Your task to perform on an android device: turn on sleep mode Image 0: 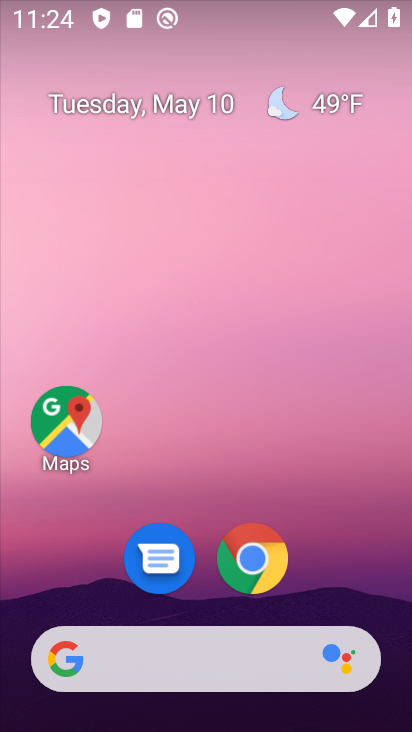
Step 0: drag from (353, 534) to (225, 39)
Your task to perform on an android device: turn on sleep mode Image 1: 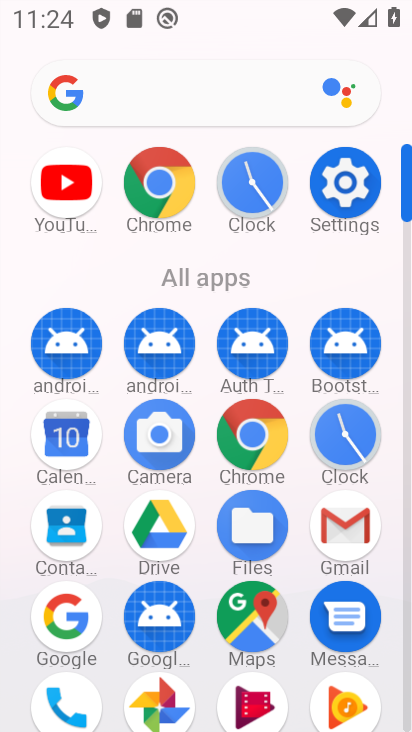
Step 1: drag from (341, 550) to (347, 41)
Your task to perform on an android device: turn on sleep mode Image 2: 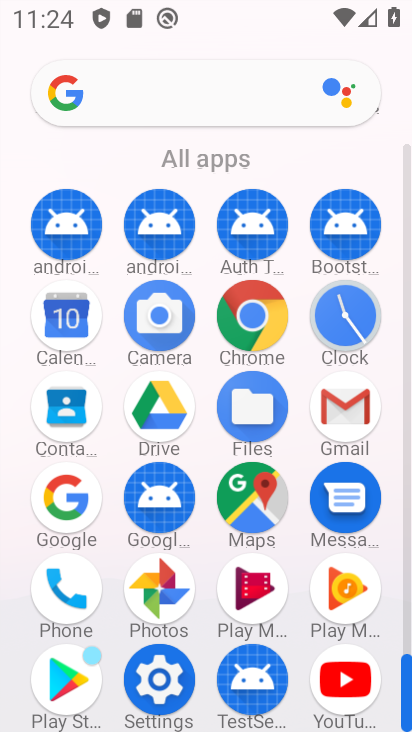
Step 2: click (327, 200)
Your task to perform on an android device: turn on sleep mode Image 3: 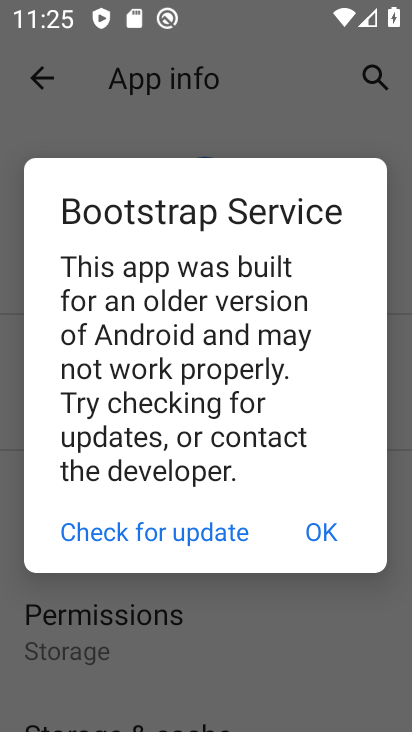
Step 3: click (161, 678)
Your task to perform on an android device: turn on sleep mode Image 4: 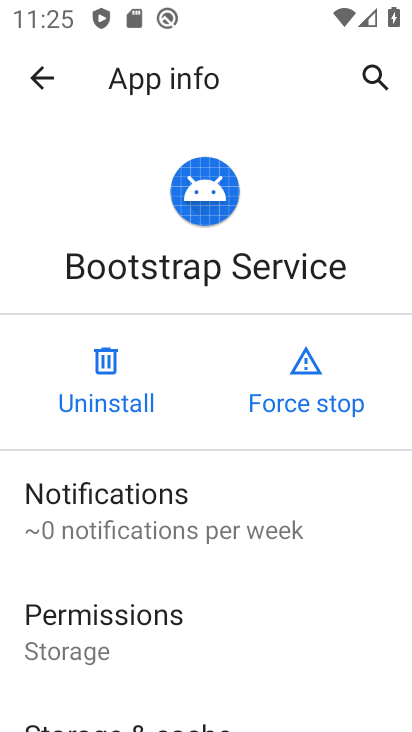
Step 4: click (315, 594)
Your task to perform on an android device: turn on sleep mode Image 5: 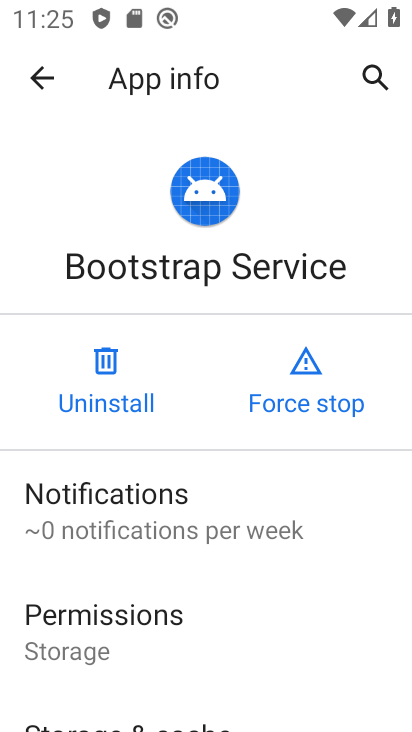
Step 5: click (315, 529)
Your task to perform on an android device: turn on sleep mode Image 6: 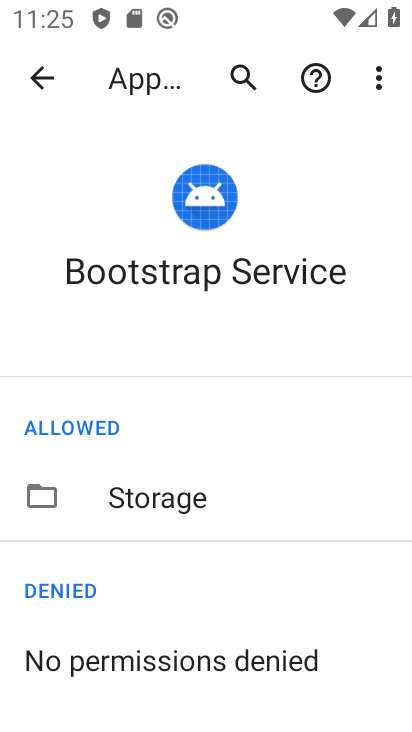
Step 6: click (59, 100)
Your task to perform on an android device: turn on sleep mode Image 7: 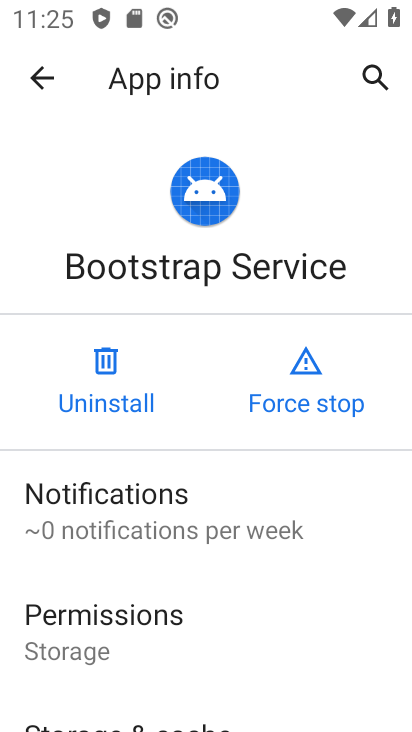
Step 7: click (46, 72)
Your task to perform on an android device: turn on sleep mode Image 8: 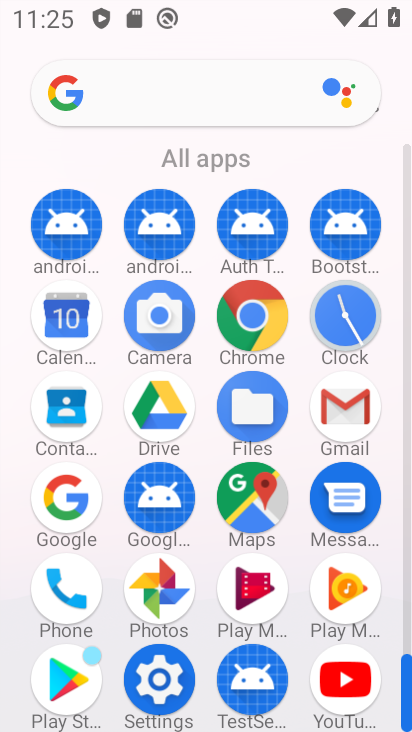
Step 8: click (154, 678)
Your task to perform on an android device: turn on sleep mode Image 9: 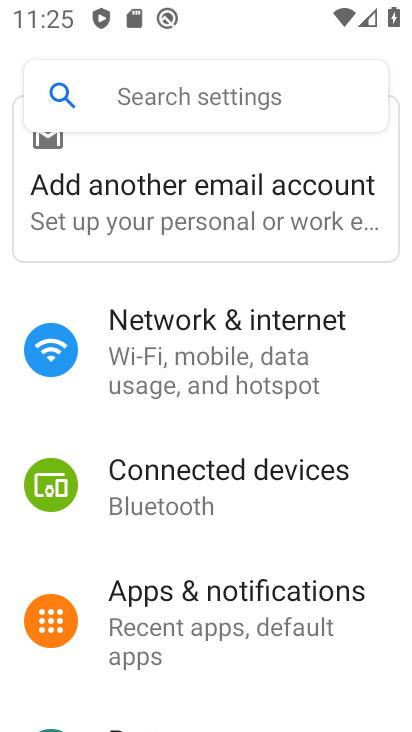
Step 9: drag from (260, 638) to (212, 351)
Your task to perform on an android device: turn on sleep mode Image 10: 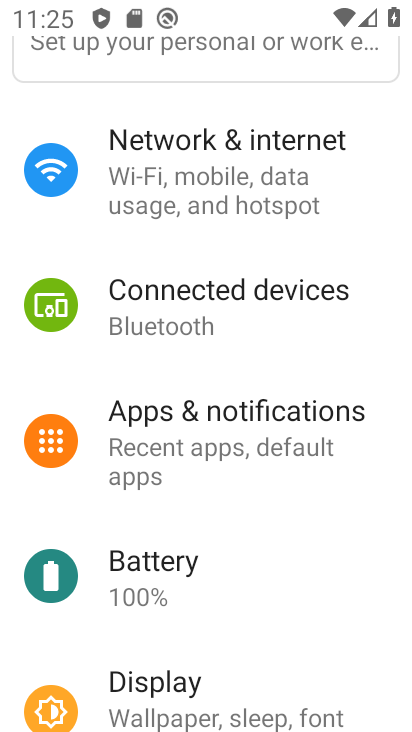
Step 10: click (243, 666)
Your task to perform on an android device: turn on sleep mode Image 11: 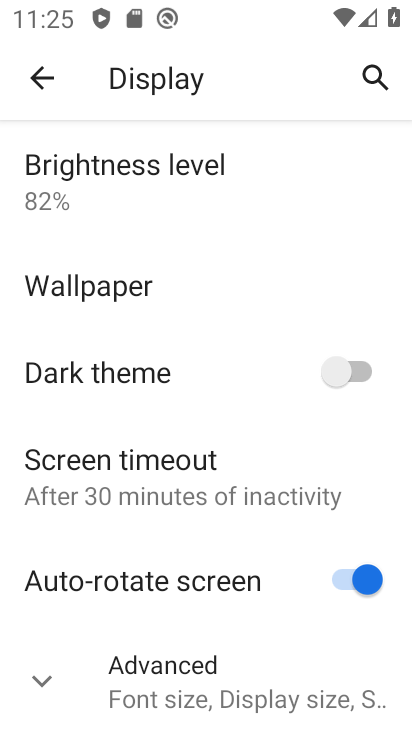
Step 11: task complete